Your task to perform on an android device: Turn on the flashlight Image 0: 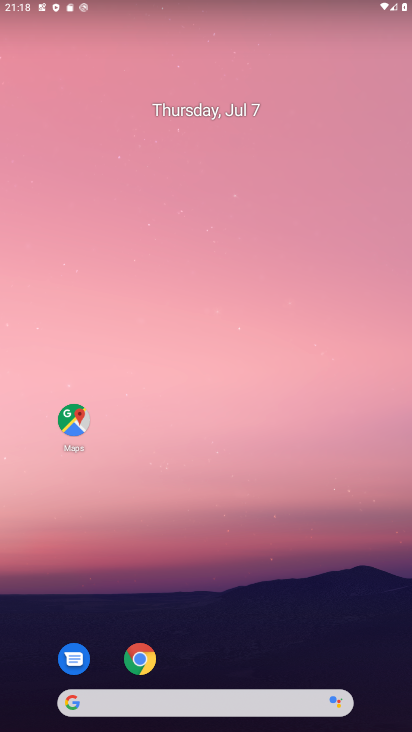
Step 0: drag from (209, 675) to (268, 85)
Your task to perform on an android device: Turn on the flashlight Image 1: 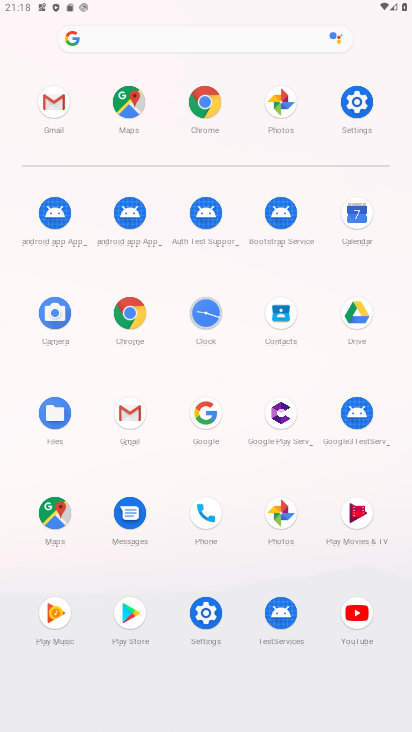
Step 1: click (210, 615)
Your task to perform on an android device: Turn on the flashlight Image 2: 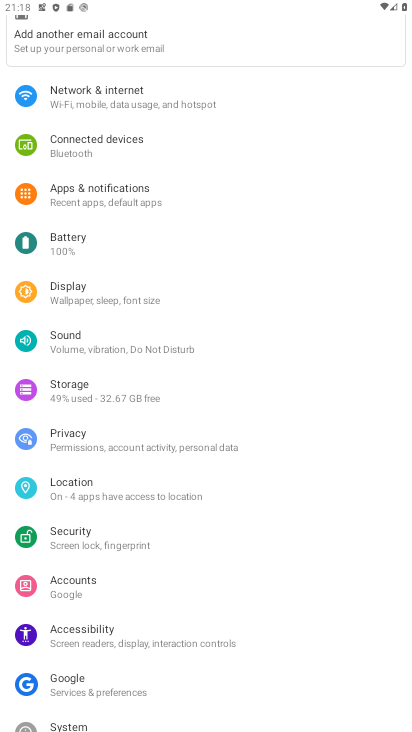
Step 2: drag from (207, 49) to (204, 369)
Your task to perform on an android device: Turn on the flashlight Image 3: 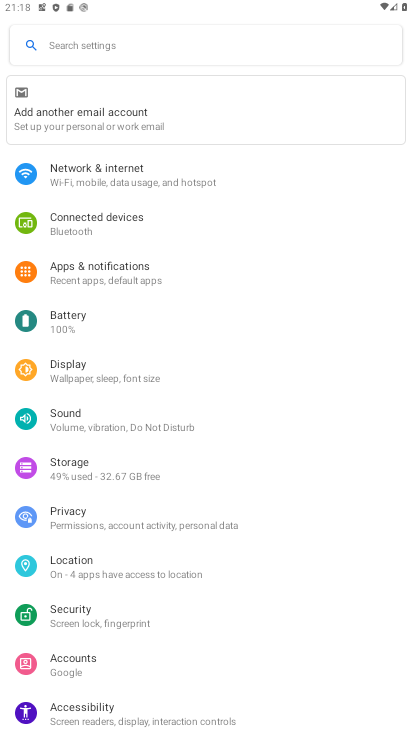
Step 3: click (211, 48)
Your task to perform on an android device: Turn on the flashlight Image 4: 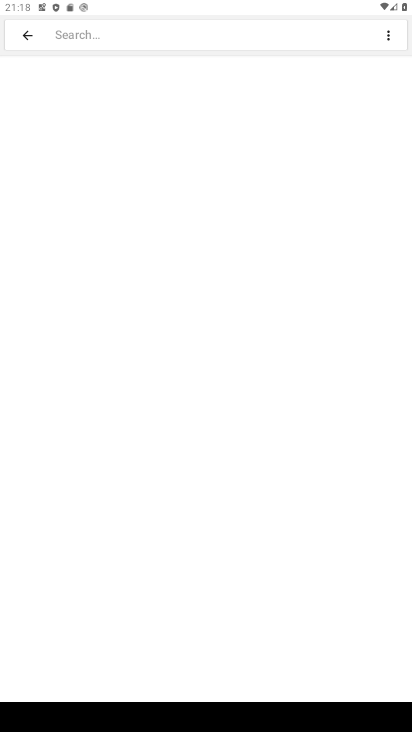
Step 4: type "flashlight"
Your task to perform on an android device: Turn on the flashlight Image 5: 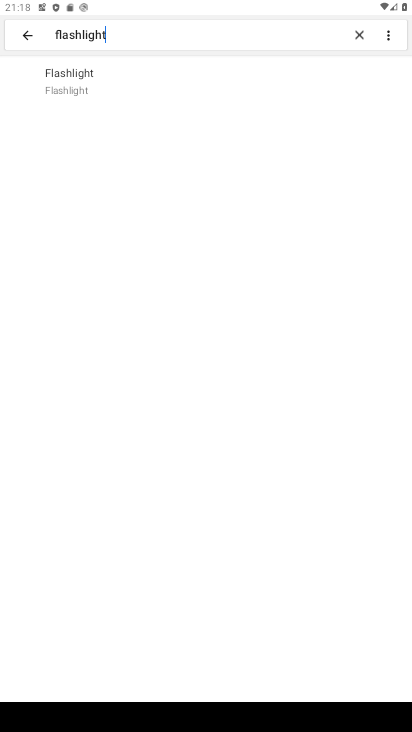
Step 5: task complete